Your task to perform on an android device: Go to CNN.com Image 0: 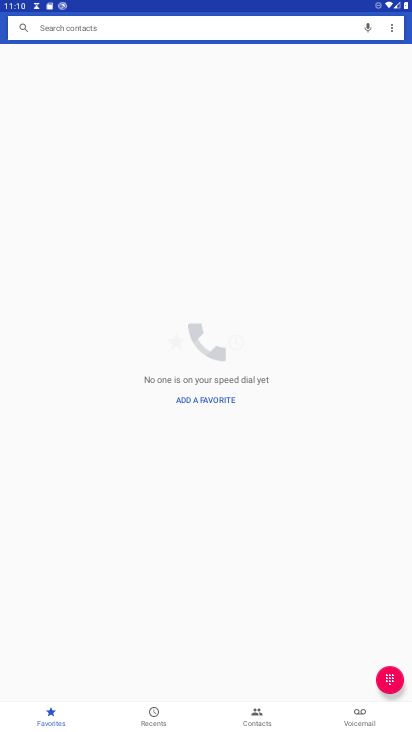
Step 0: press home button
Your task to perform on an android device: Go to CNN.com Image 1: 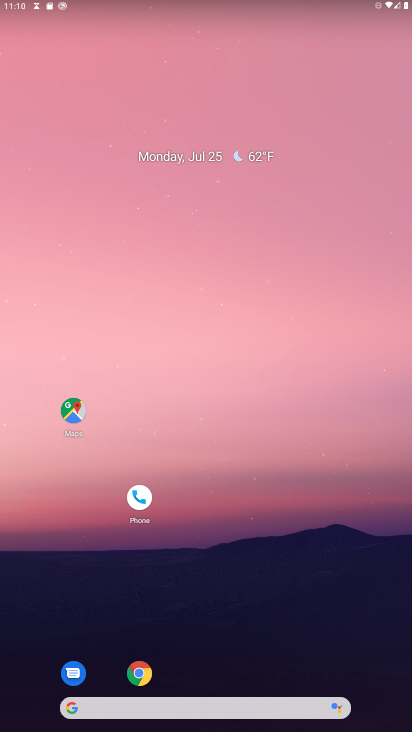
Step 1: click (69, 707)
Your task to perform on an android device: Go to CNN.com Image 2: 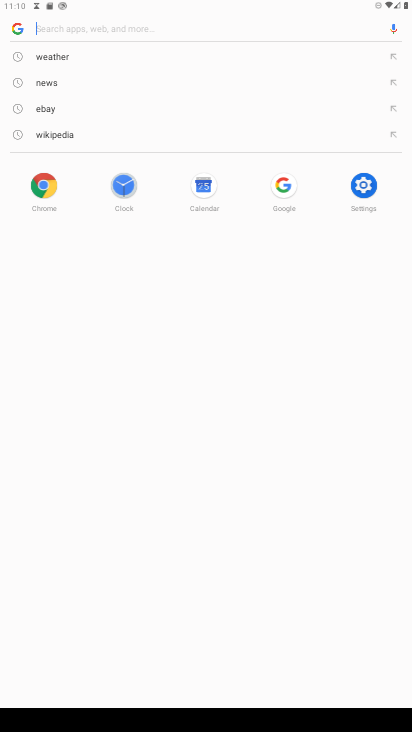
Step 2: type "CNN.com"
Your task to perform on an android device: Go to CNN.com Image 3: 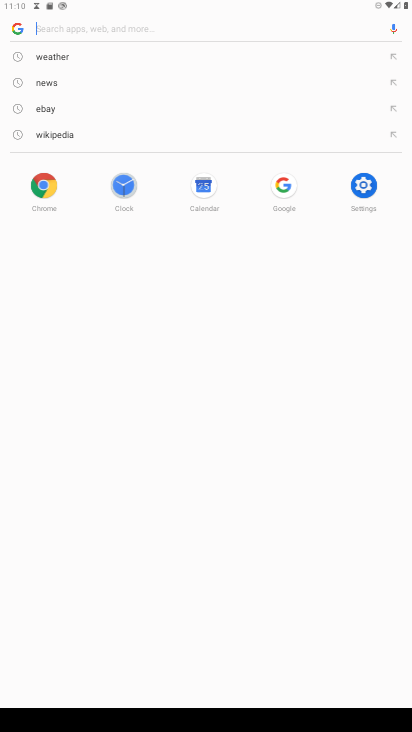
Step 3: click (71, 33)
Your task to perform on an android device: Go to CNN.com Image 4: 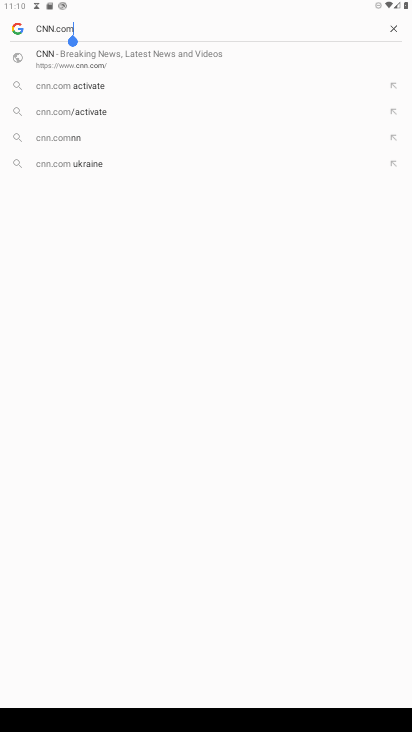
Step 4: press enter
Your task to perform on an android device: Go to CNN.com Image 5: 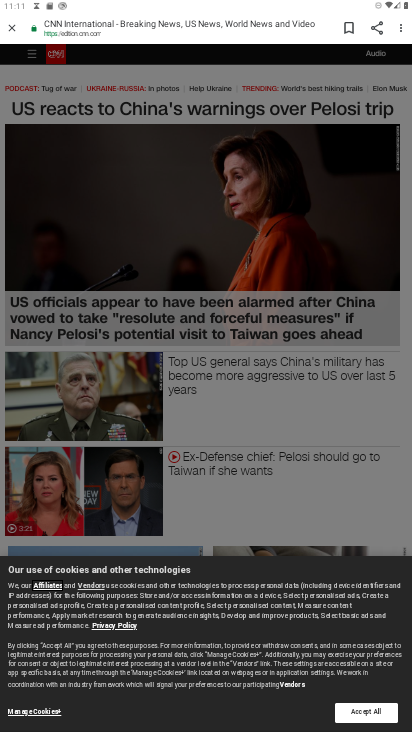
Step 5: task complete